Your task to perform on an android device: Go to eBay Image 0: 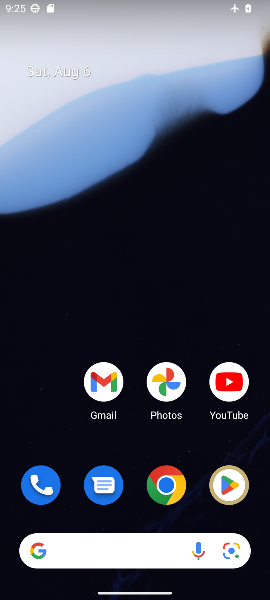
Step 0: drag from (201, 447) to (227, 31)
Your task to perform on an android device: Go to eBay Image 1: 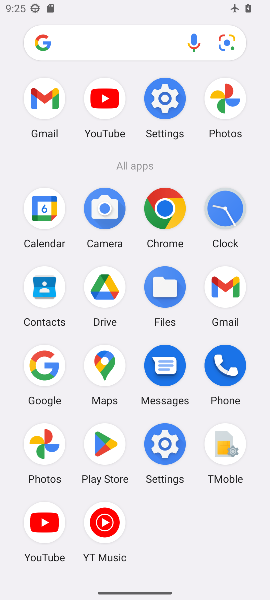
Step 1: click (167, 212)
Your task to perform on an android device: Go to eBay Image 2: 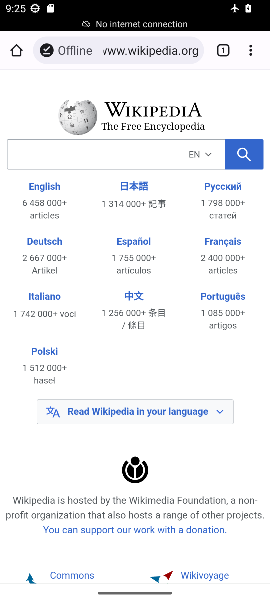
Step 2: click (153, 51)
Your task to perform on an android device: Go to eBay Image 3: 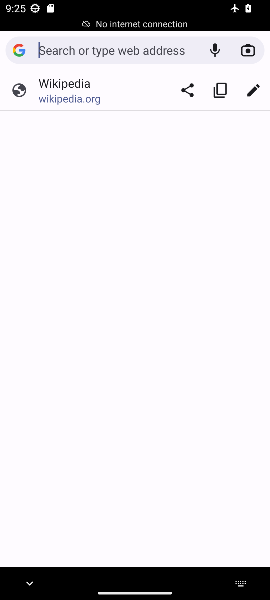
Step 3: type "ebay"
Your task to perform on an android device: Go to eBay Image 4: 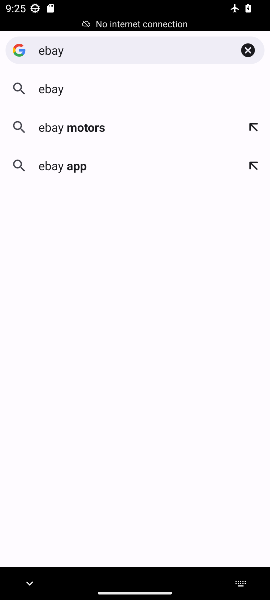
Step 4: click (69, 91)
Your task to perform on an android device: Go to eBay Image 5: 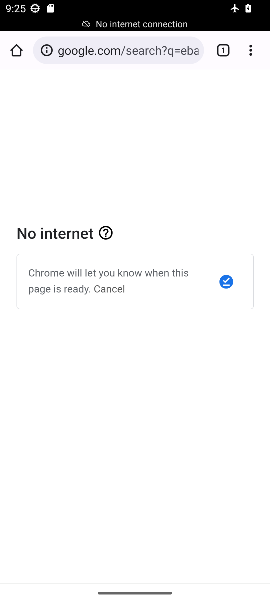
Step 5: task complete